Your task to perform on an android device: star an email in the gmail app Image 0: 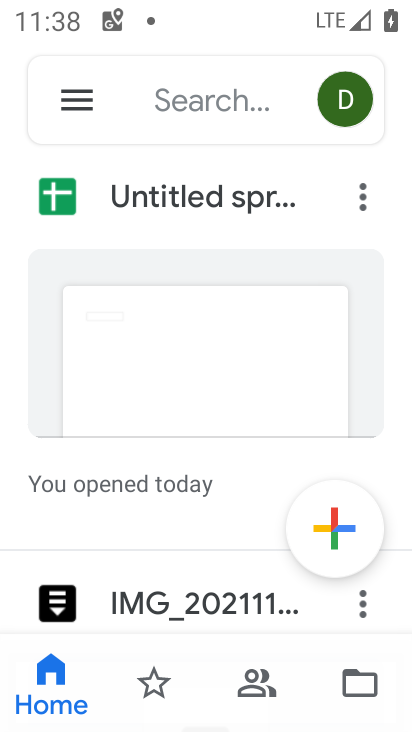
Step 0: press back button
Your task to perform on an android device: star an email in the gmail app Image 1: 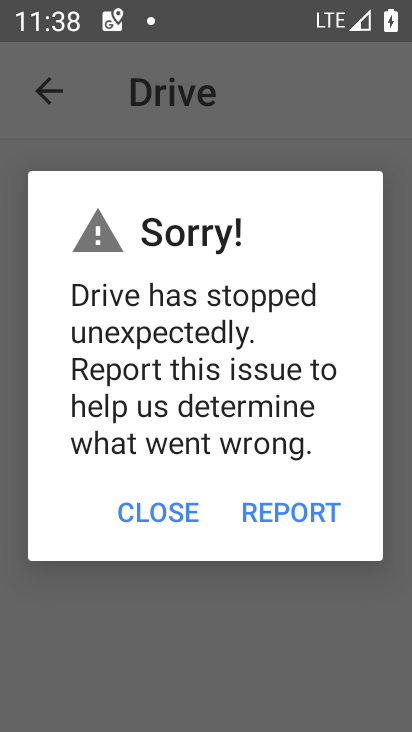
Step 1: press home button
Your task to perform on an android device: star an email in the gmail app Image 2: 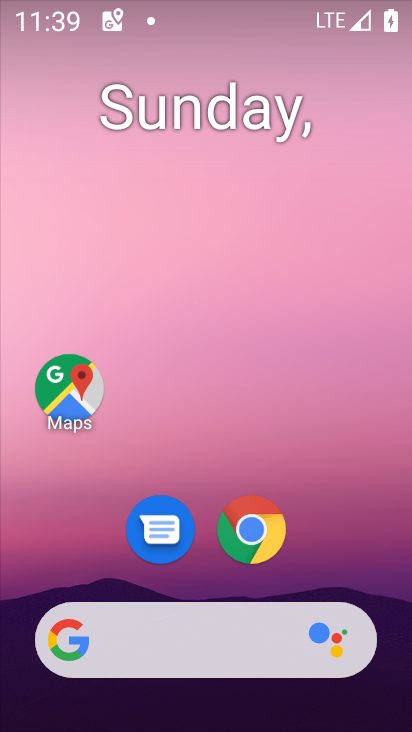
Step 2: drag from (327, 499) to (220, 101)
Your task to perform on an android device: star an email in the gmail app Image 3: 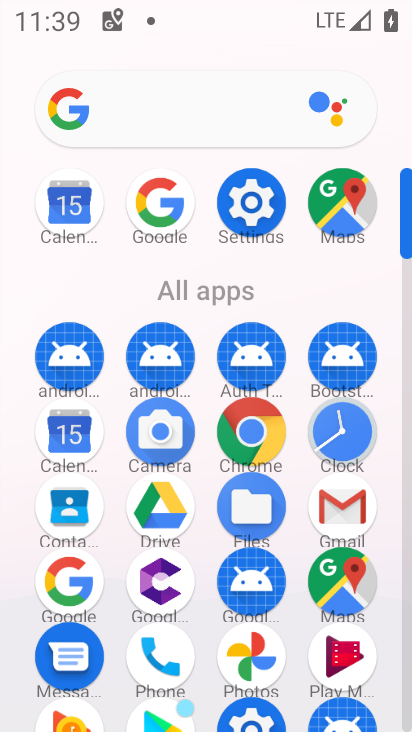
Step 3: click (341, 504)
Your task to perform on an android device: star an email in the gmail app Image 4: 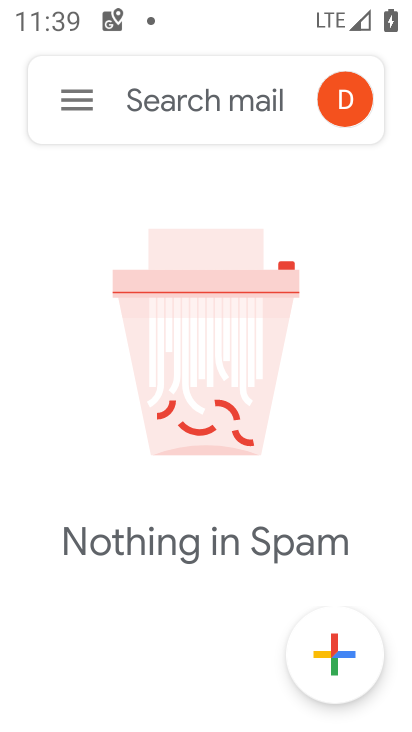
Step 4: click (69, 105)
Your task to perform on an android device: star an email in the gmail app Image 5: 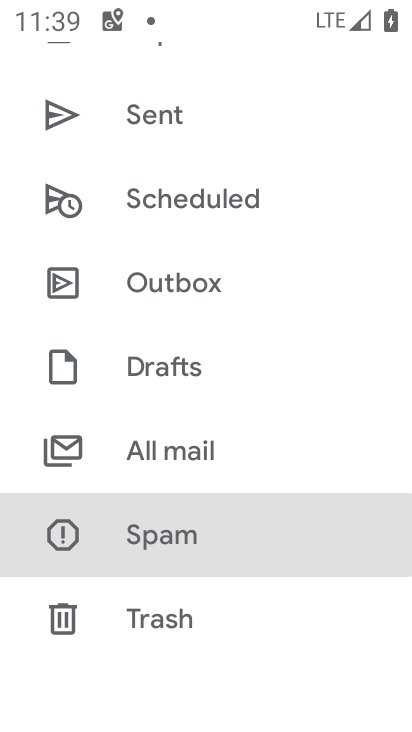
Step 5: drag from (207, 163) to (221, 405)
Your task to perform on an android device: star an email in the gmail app Image 6: 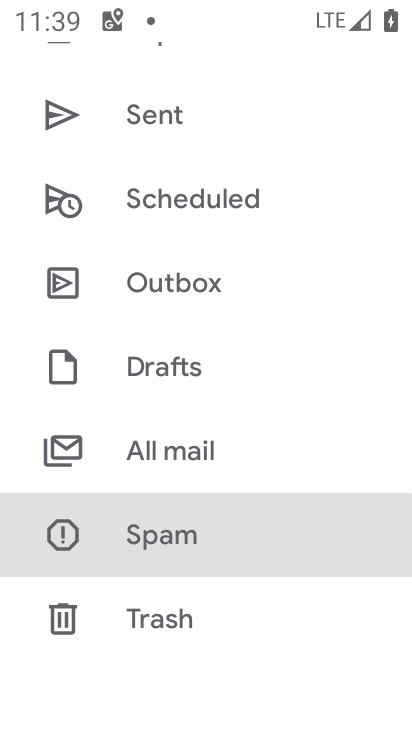
Step 6: click (206, 452)
Your task to perform on an android device: star an email in the gmail app Image 7: 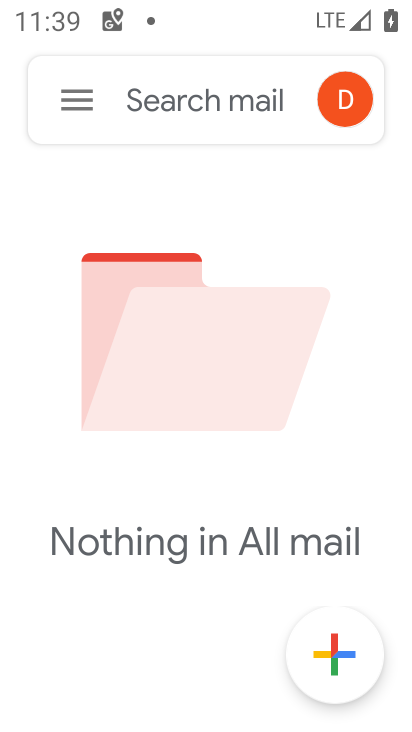
Step 7: click (59, 99)
Your task to perform on an android device: star an email in the gmail app Image 8: 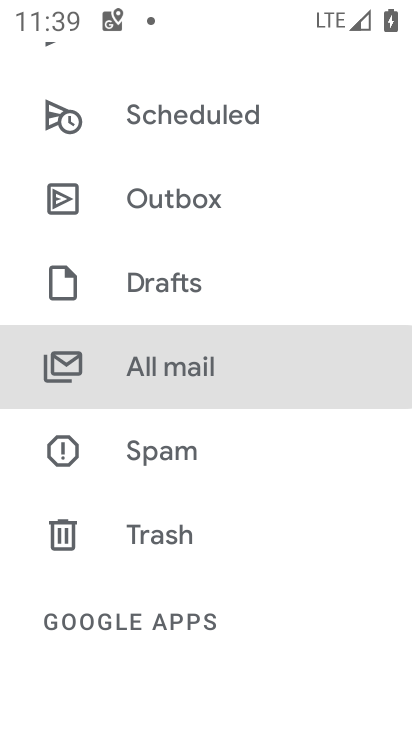
Step 8: drag from (146, 241) to (161, 440)
Your task to perform on an android device: star an email in the gmail app Image 9: 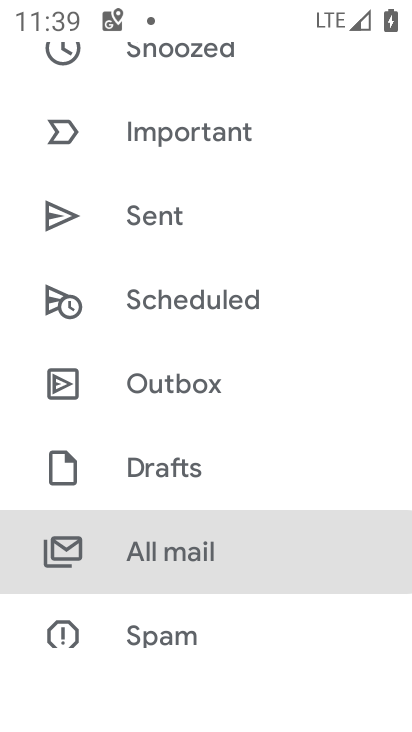
Step 9: drag from (178, 257) to (208, 380)
Your task to perform on an android device: star an email in the gmail app Image 10: 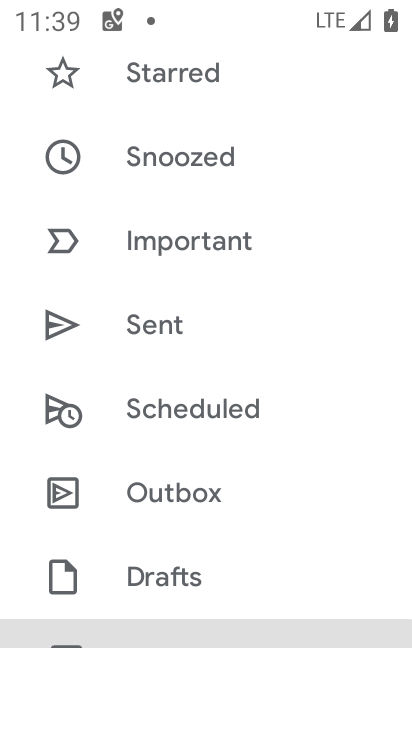
Step 10: drag from (165, 211) to (192, 391)
Your task to perform on an android device: star an email in the gmail app Image 11: 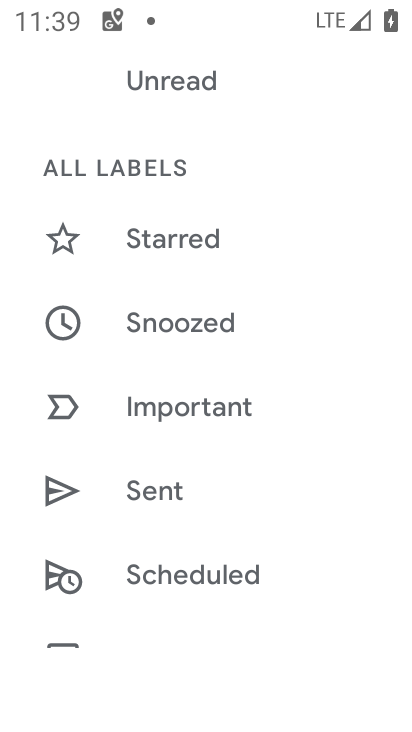
Step 11: drag from (170, 319) to (193, 406)
Your task to perform on an android device: star an email in the gmail app Image 12: 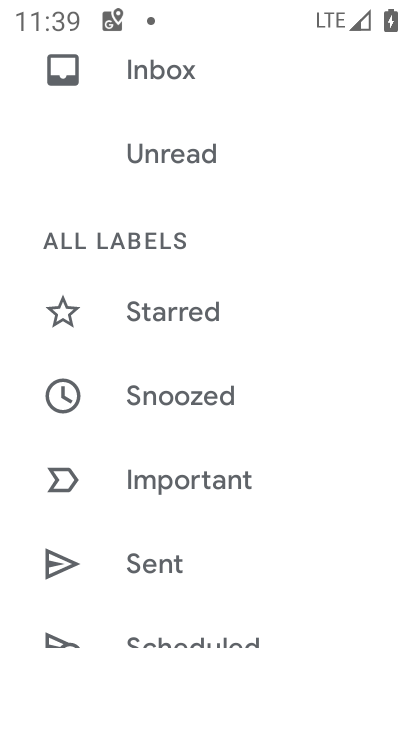
Step 12: click (146, 142)
Your task to perform on an android device: star an email in the gmail app Image 13: 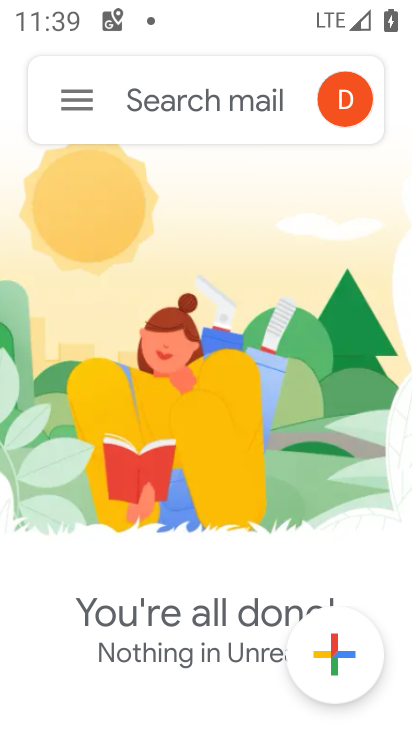
Step 13: task complete